Your task to perform on an android device: toggle priority inbox in the gmail app Image 0: 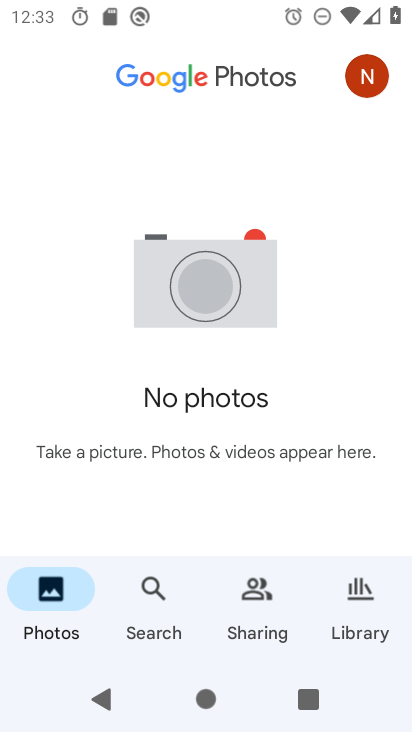
Step 0: press home button
Your task to perform on an android device: toggle priority inbox in the gmail app Image 1: 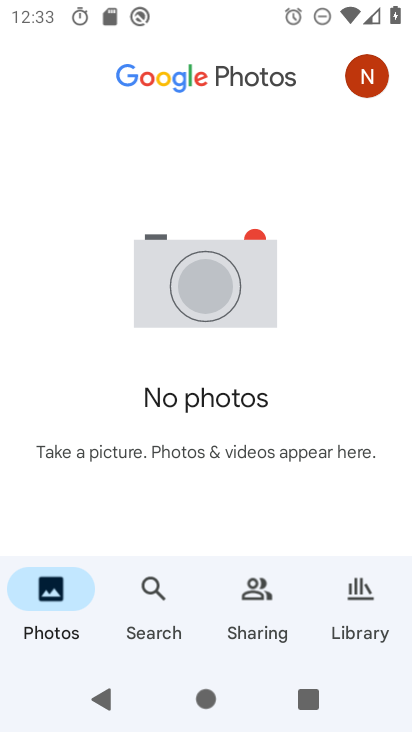
Step 1: press home button
Your task to perform on an android device: toggle priority inbox in the gmail app Image 2: 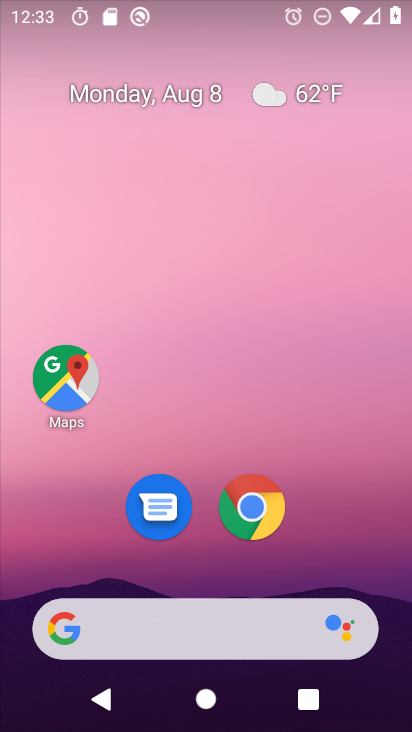
Step 2: drag from (318, 442) to (347, 89)
Your task to perform on an android device: toggle priority inbox in the gmail app Image 3: 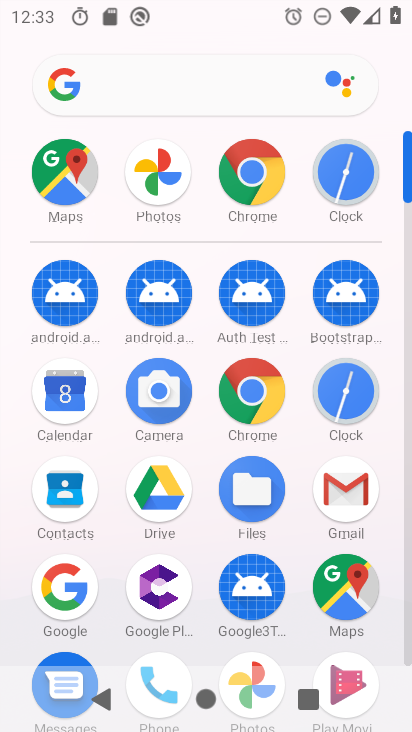
Step 3: click (342, 488)
Your task to perform on an android device: toggle priority inbox in the gmail app Image 4: 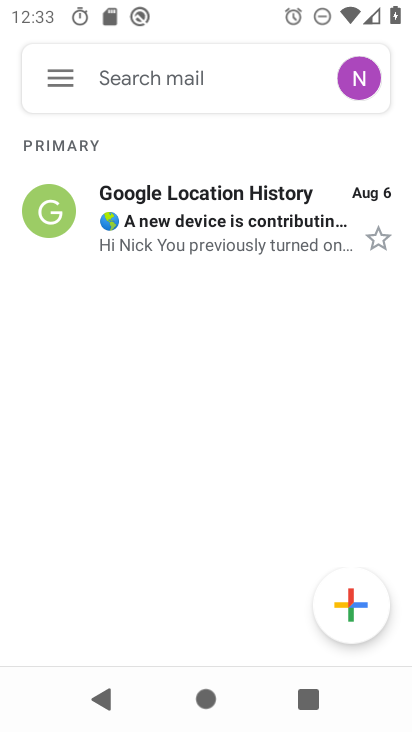
Step 4: click (54, 65)
Your task to perform on an android device: toggle priority inbox in the gmail app Image 5: 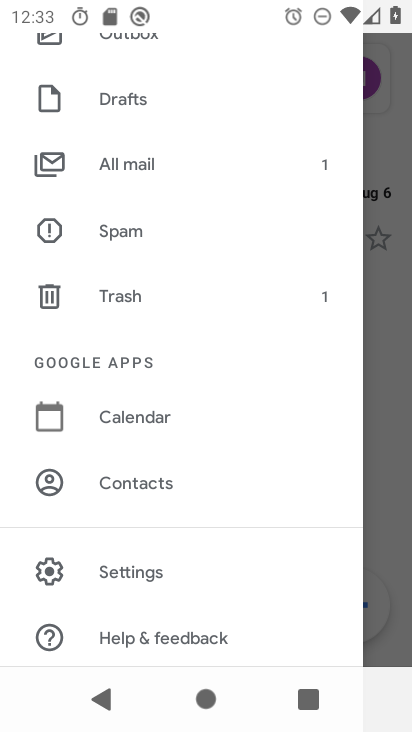
Step 5: click (147, 568)
Your task to perform on an android device: toggle priority inbox in the gmail app Image 6: 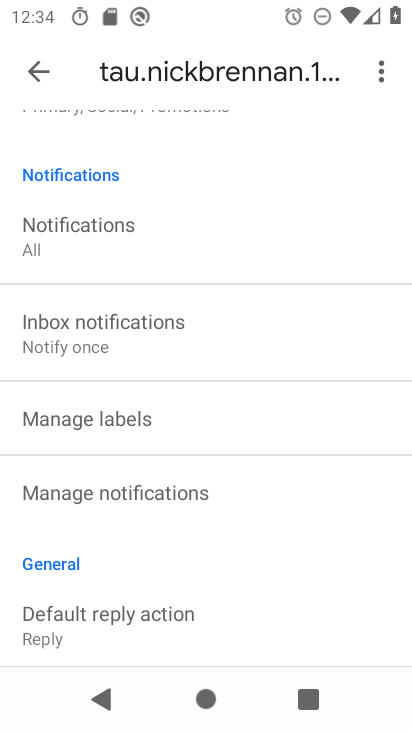
Step 6: drag from (209, 605) to (264, 139)
Your task to perform on an android device: toggle priority inbox in the gmail app Image 7: 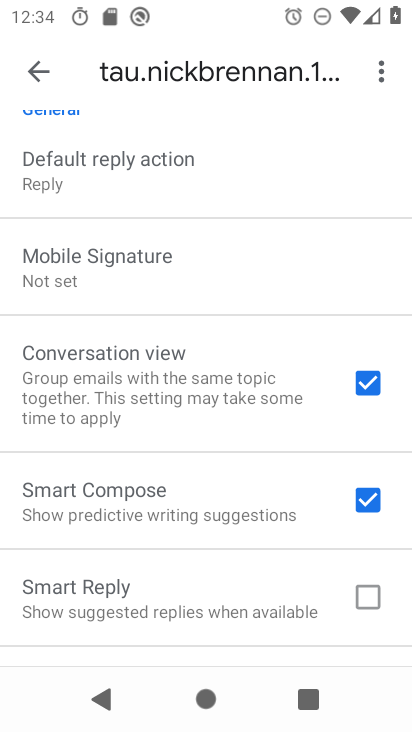
Step 7: drag from (269, 131) to (296, 710)
Your task to perform on an android device: toggle priority inbox in the gmail app Image 8: 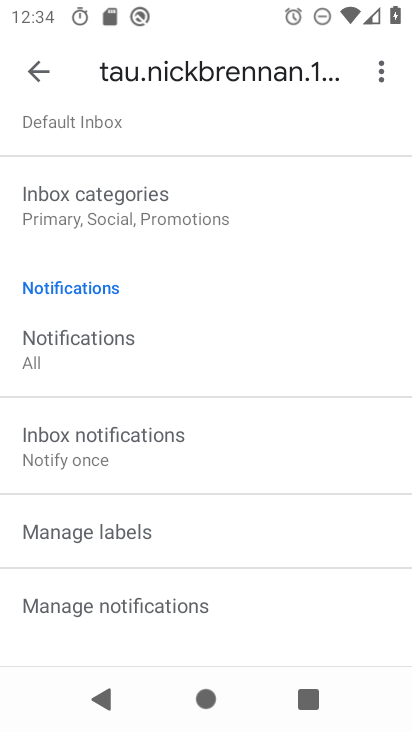
Step 8: drag from (248, 146) to (268, 580)
Your task to perform on an android device: toggle priority inbox in the gmail app Image 9: 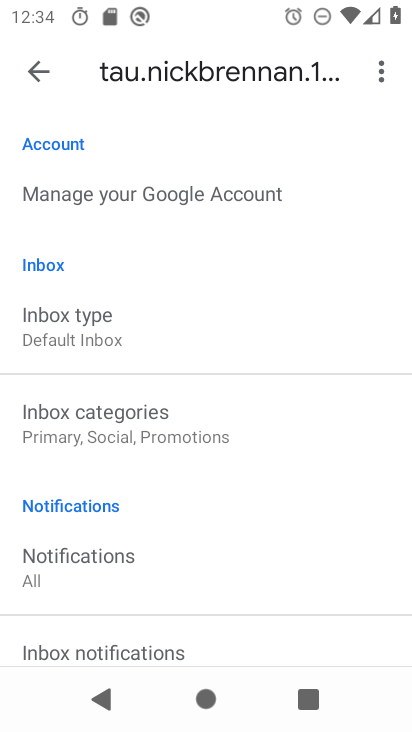
Step 9: click (99, 335)
Your task to perform on an android device: toggle priority inbox in the gmail app Image 10: 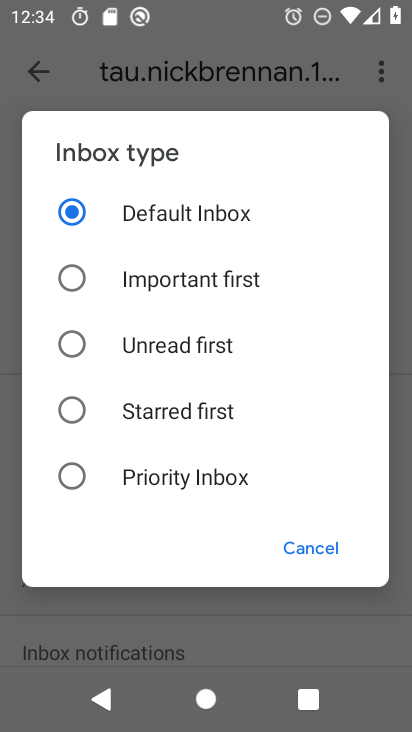
Step 10: click (151, 482)
Your task to perform on an android device: toggle priority inbox in the gmail app Image 11: 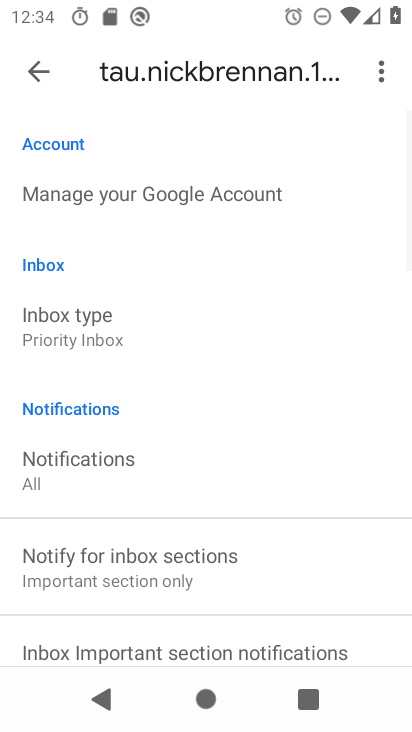
Step 11: task complete